Your task to perform on an android device: What's the news in Ecuador? Image 0: 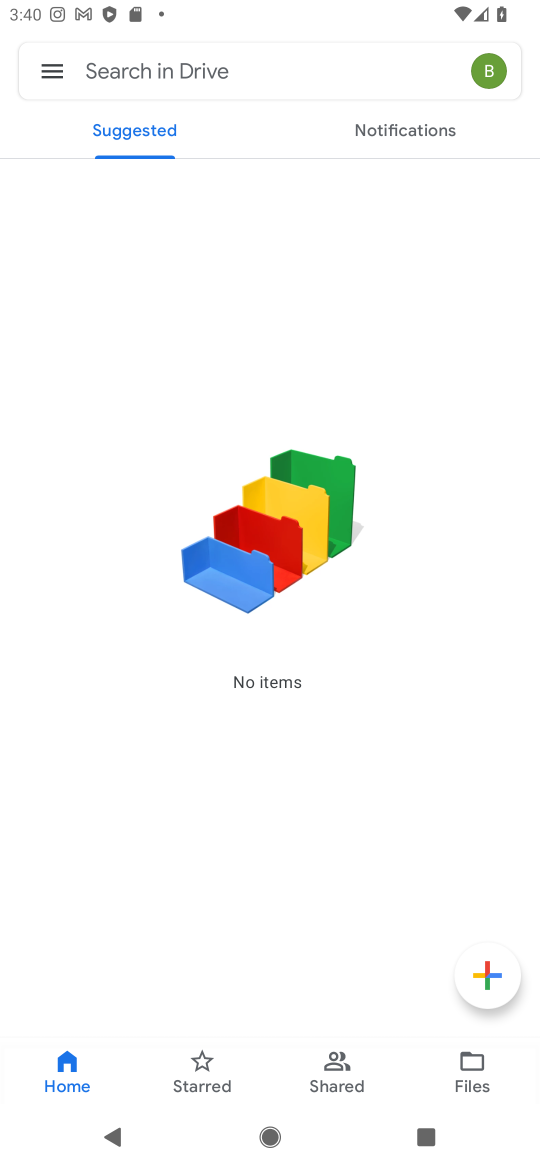
Step 0: press home button
Your task to perform on an android device: What's the news in Ecuador? Image 1: 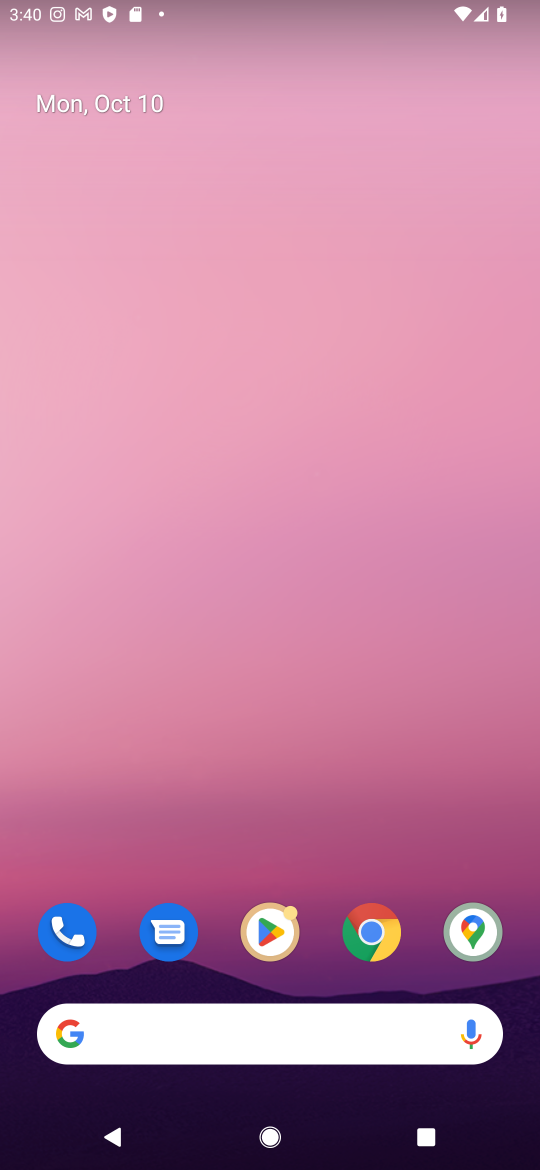
Step 1: click (297, 1040)
Your task to perform on an android device: What's the news in Ecuador? Image 2: 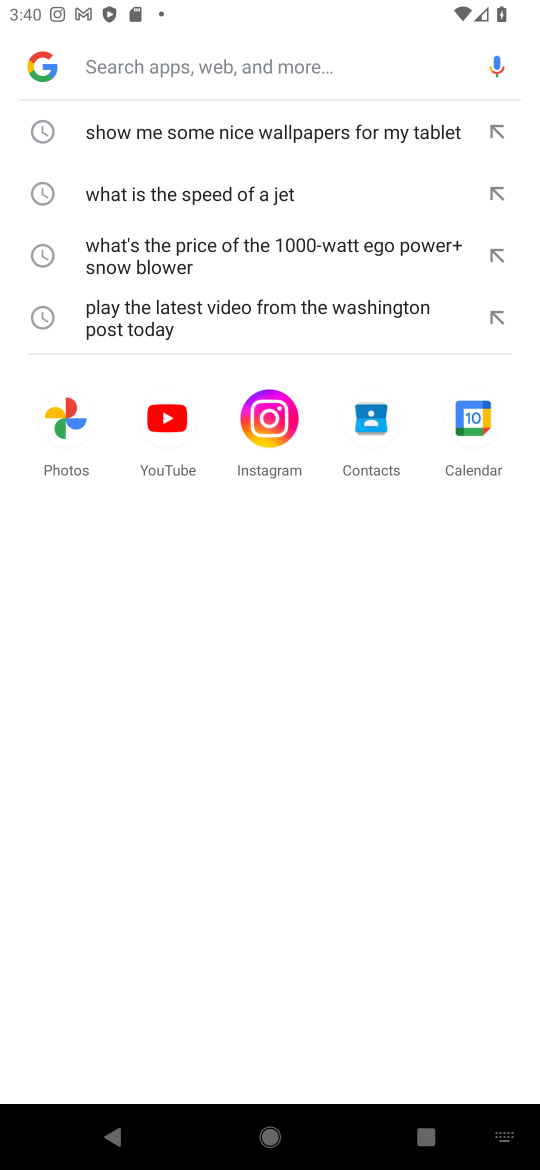
Step 2: type "What's the news in Ecuador"
Your task to perform on an android device: What's the news in Ecuador? Image 3: 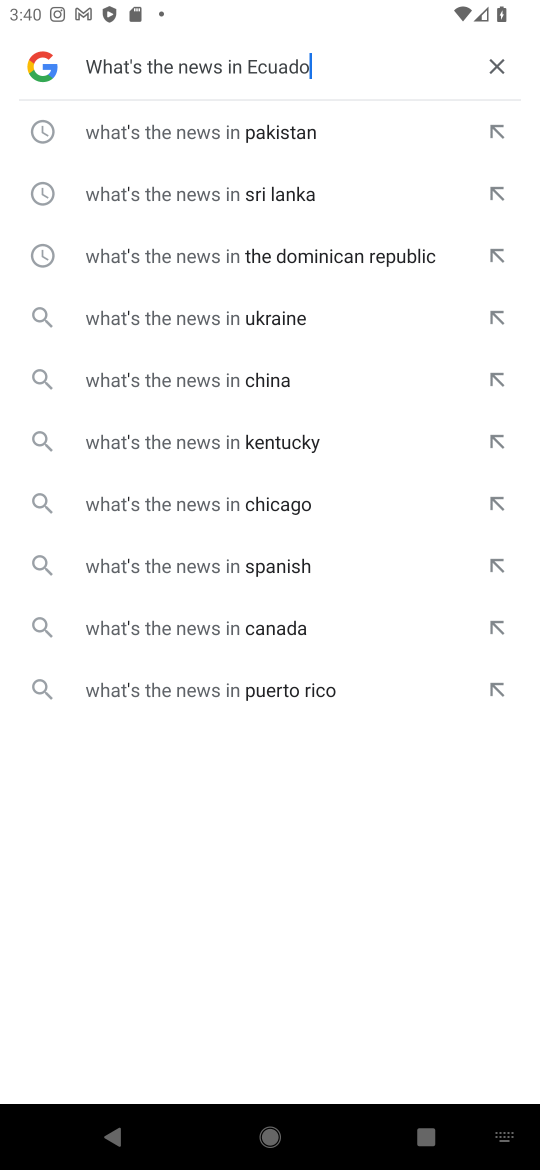
Step 3: press enter
Your task to perform on an android device: What's the news in Ecuador? Image 4: 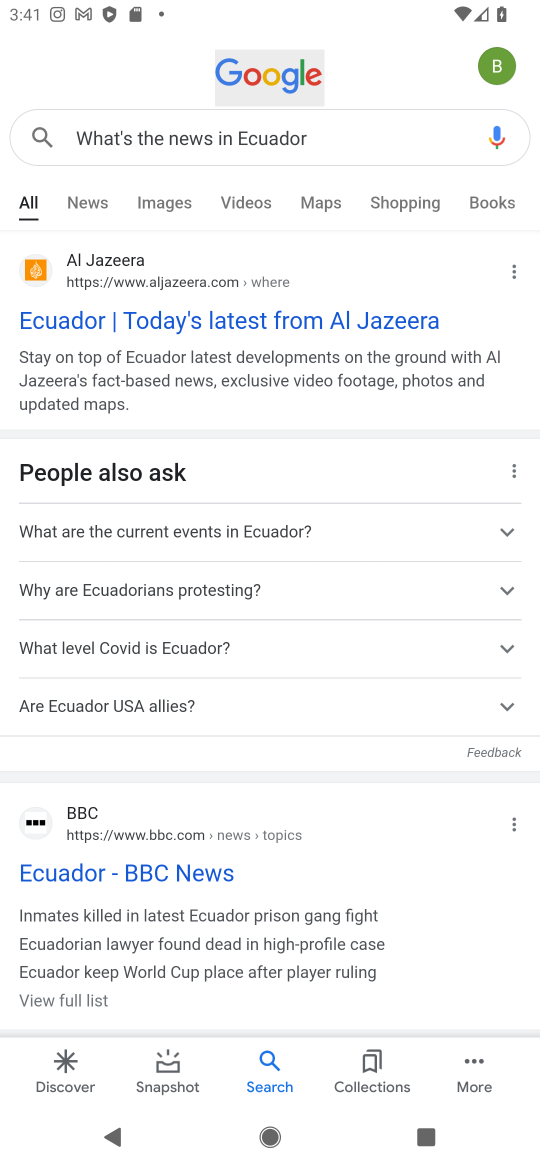
Step 4: click (339, 319)
Your task to perform on an android device: What's the news in Ecuador? Image 5: 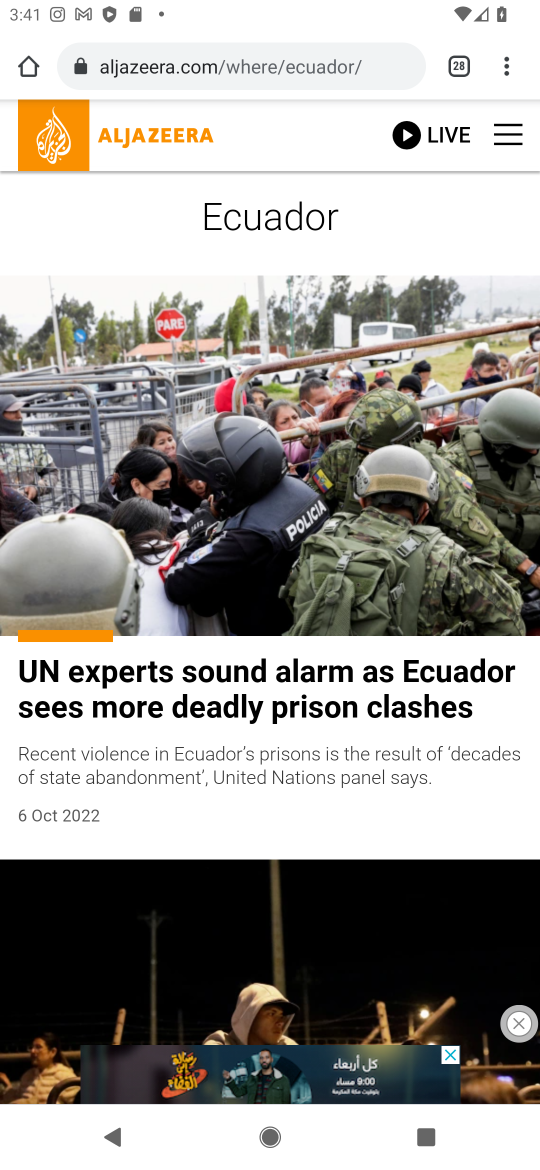
Step 5: task complete